Your task to perform on an android device: find photos in the google photos app Image 0: 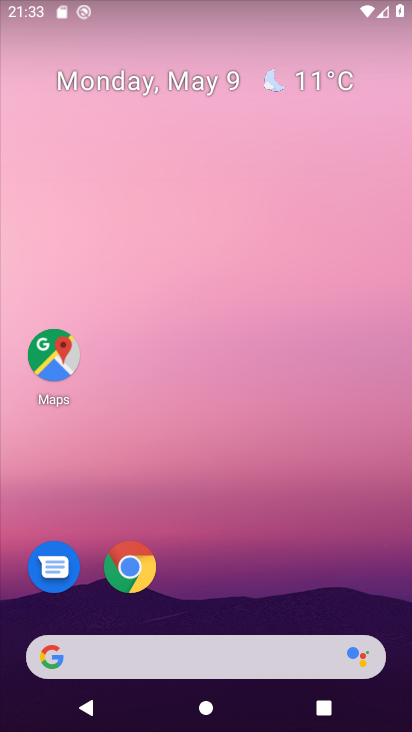
Step 0: drag from (239, 507) to (210, 9)
Your task to perform on an android device: find photos in the google photos app Image 1: 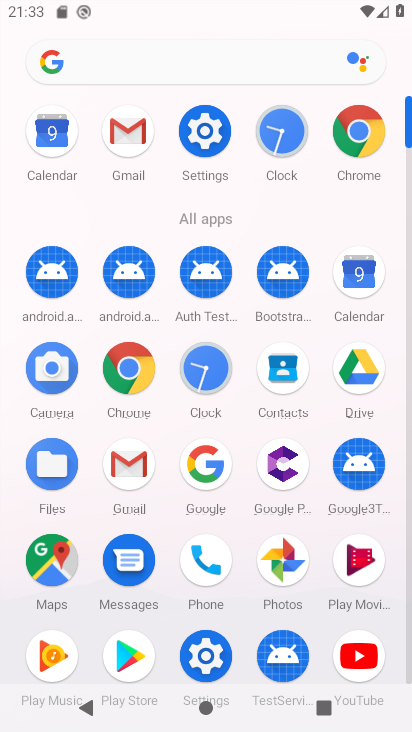
Step 1: click (278, 558)
Your task to perform on an android device: find photos in the google photos app Image 2: 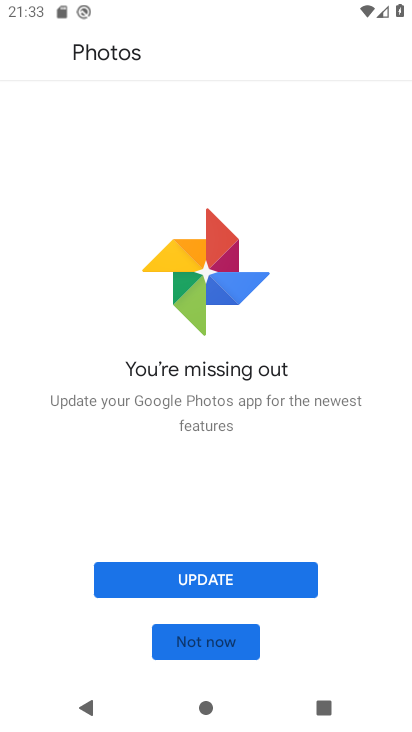
Step 2: click (232, 570)
Your task to perform on an android device: find photos in the google photos app Image 3: 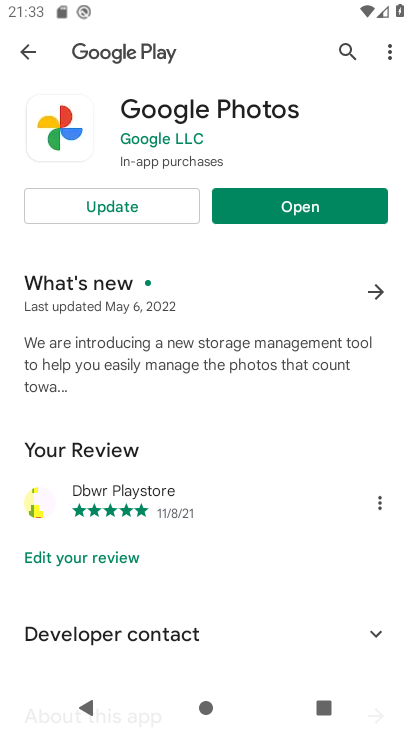
Step 3: click (116, 205)
Your task to perform on an android device: find photos in the google photos app Image 4: 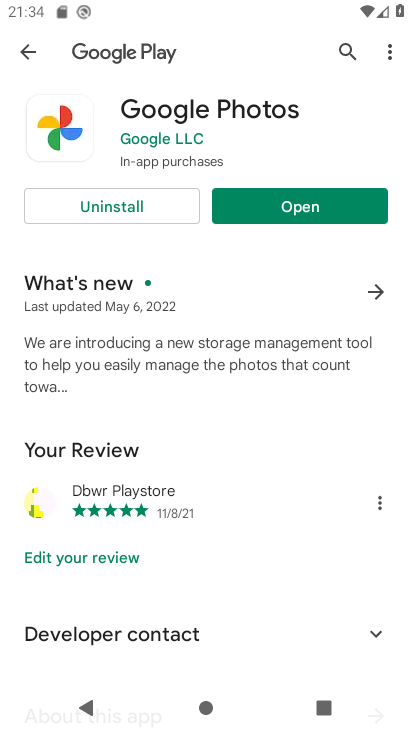
Step 4: click (300, 206)
Your task to perform on an android device: find photos in the google photos app Image 5: 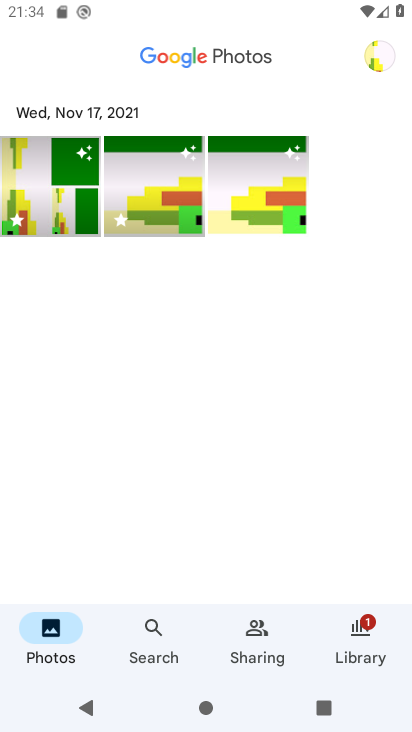
Step 5: task complete